Your task to perform on an android device: toggle improve location accuracy Image 0: 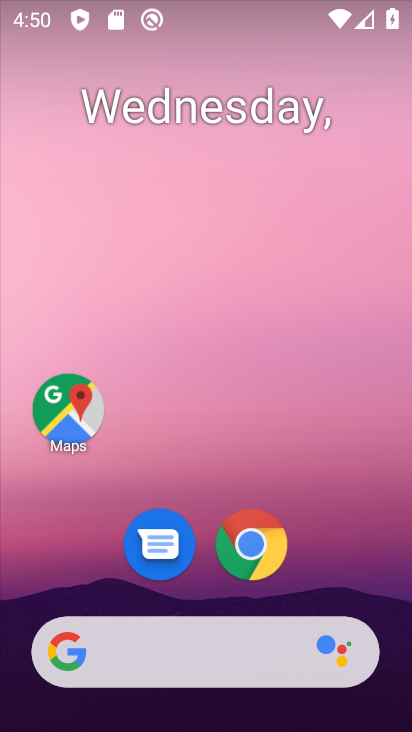
Step 0: drag from (195, 594) to (173, 12)
Your task to perform on an android device: toggle improve location accuracy Image 1: 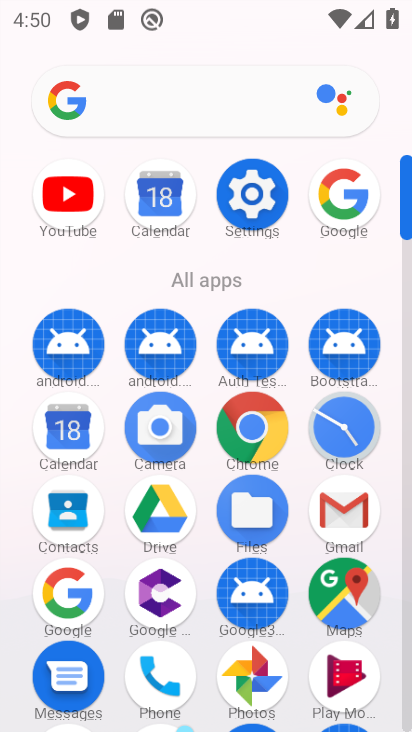
Step 1: click (263, 208)
Your task to perform on an android device: toggle improve location accuracy Image 2: 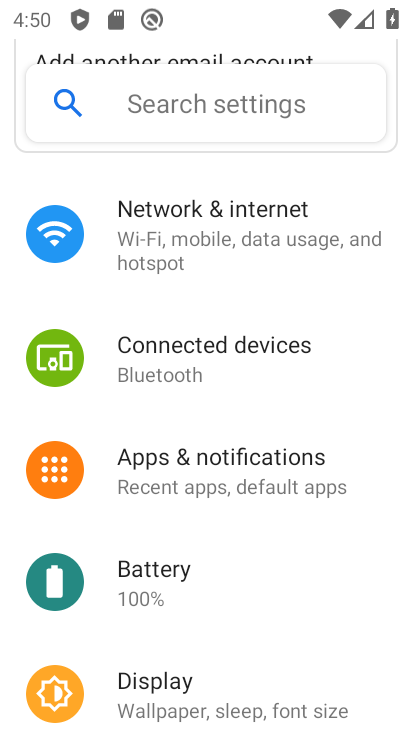
Step 2: drag from (219, 550) to (183, 58)
Your task to perform on an android device: toggle improve location accuracy Image 3: 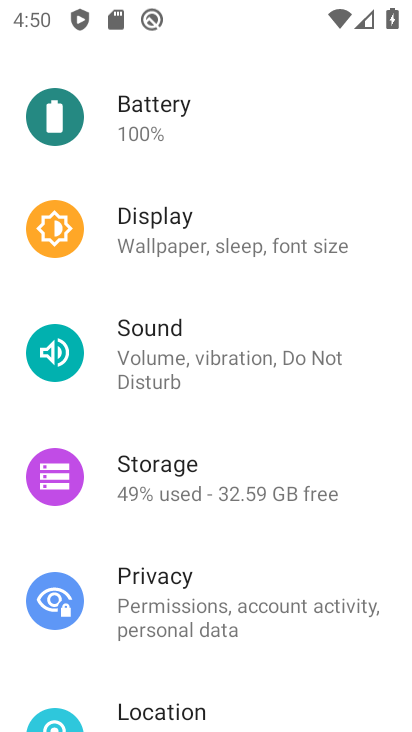
Step 3: drag from (168, 594) to (136, 284)
Your task to perform on an android device: toggle improve location accuracy Image 4: 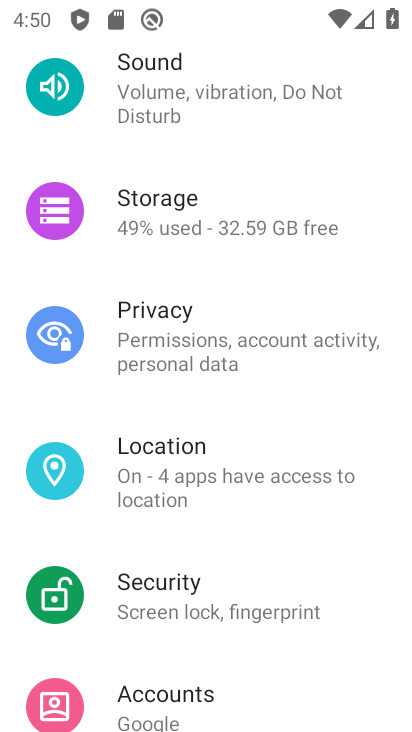
Step 4: click (159, 468)
Your task to perform on an android device: toggle improve location accuracy Image 5: 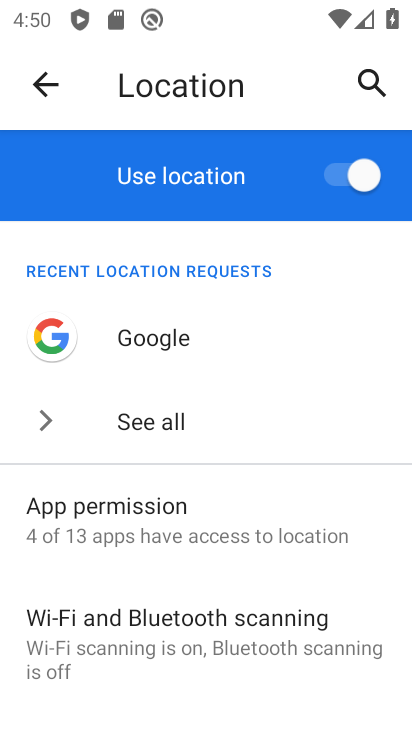
Step 5: drag from (120, 660) to (143, 278)
Your task to perform on an android device: toggle improve location accuracy Image 6: 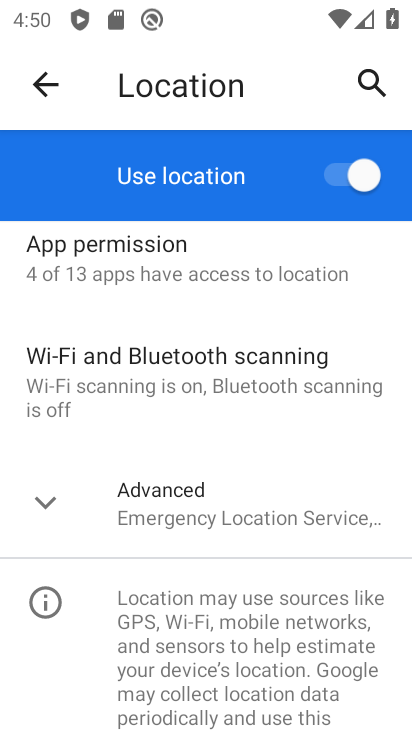
Step 6: click (176, 497)
Your task to perform on an android device: toggle improve location accuracy Image 7: 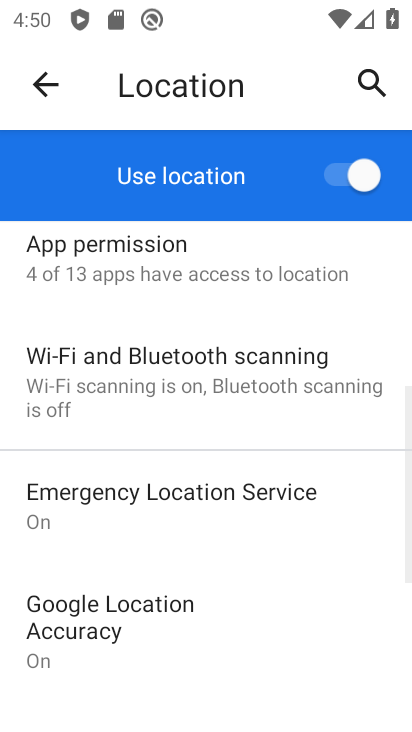
Step 7: click (156, 611)
Your task to perform on an android device: toggle improve location accuracy Image 8: 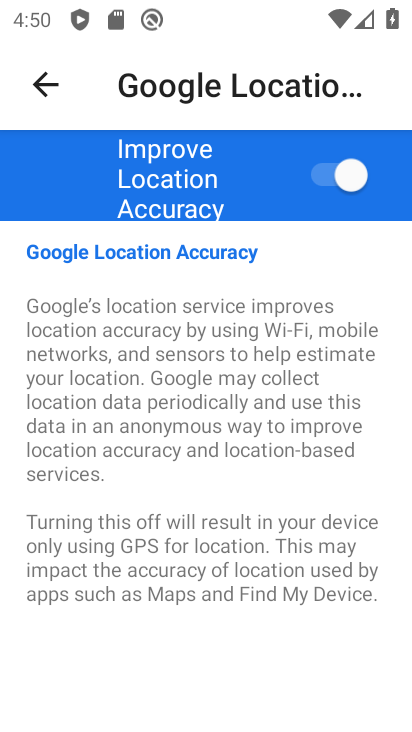
Step 8: click (351, 176)
Your task to perform on an android device: toggle improve location accuracy Image 9: 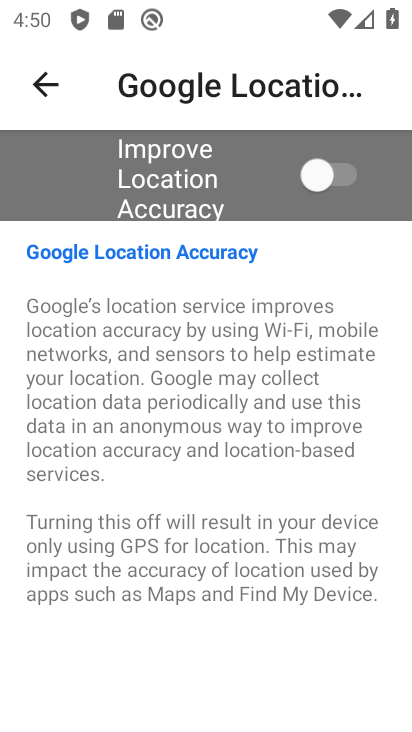
Step 9: task complete